Your task to perform on an android device: open app "Lyft - Rideshare, Bikes, Scooters & Transit" Image 0: 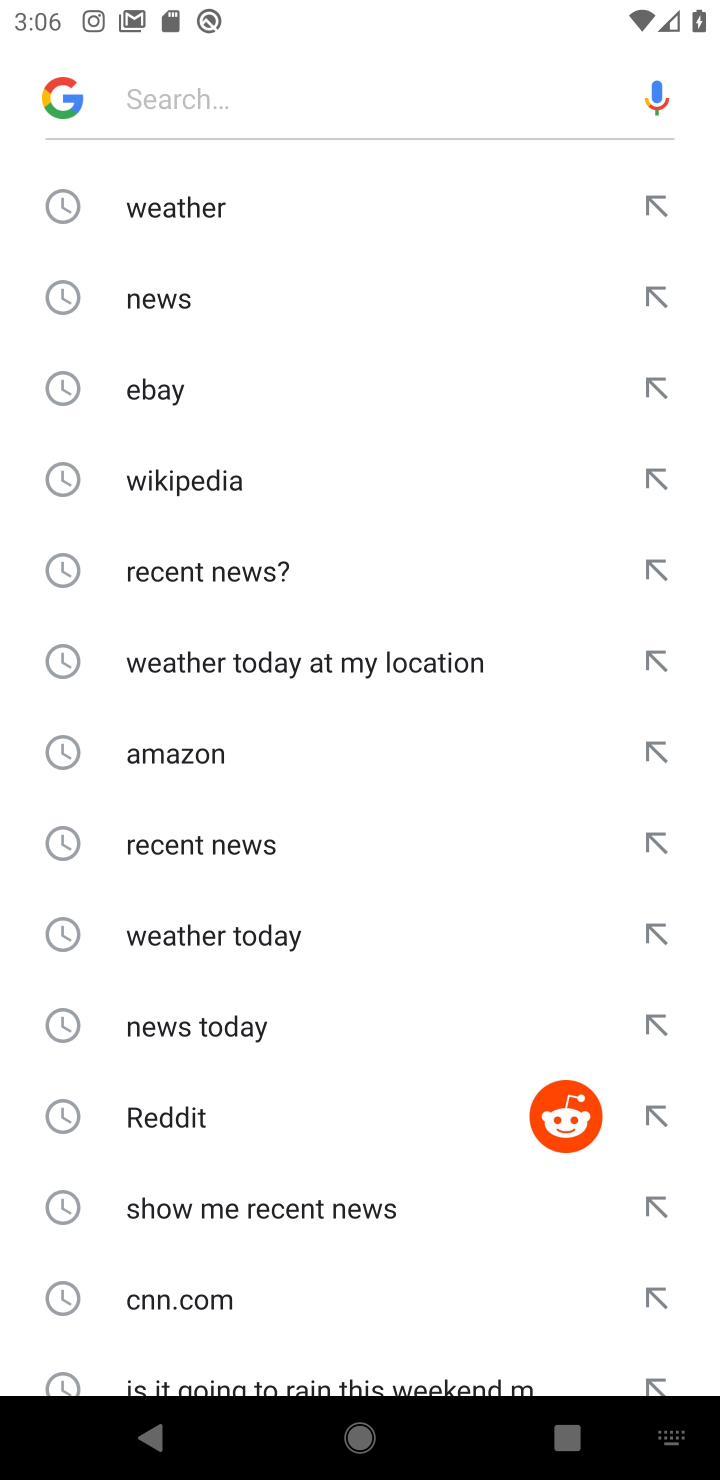
Step 0: press home button
Your task to perform on an android device: open app "Lyft - Rideshare, Bikes, Scooters & Transit" Image 1: 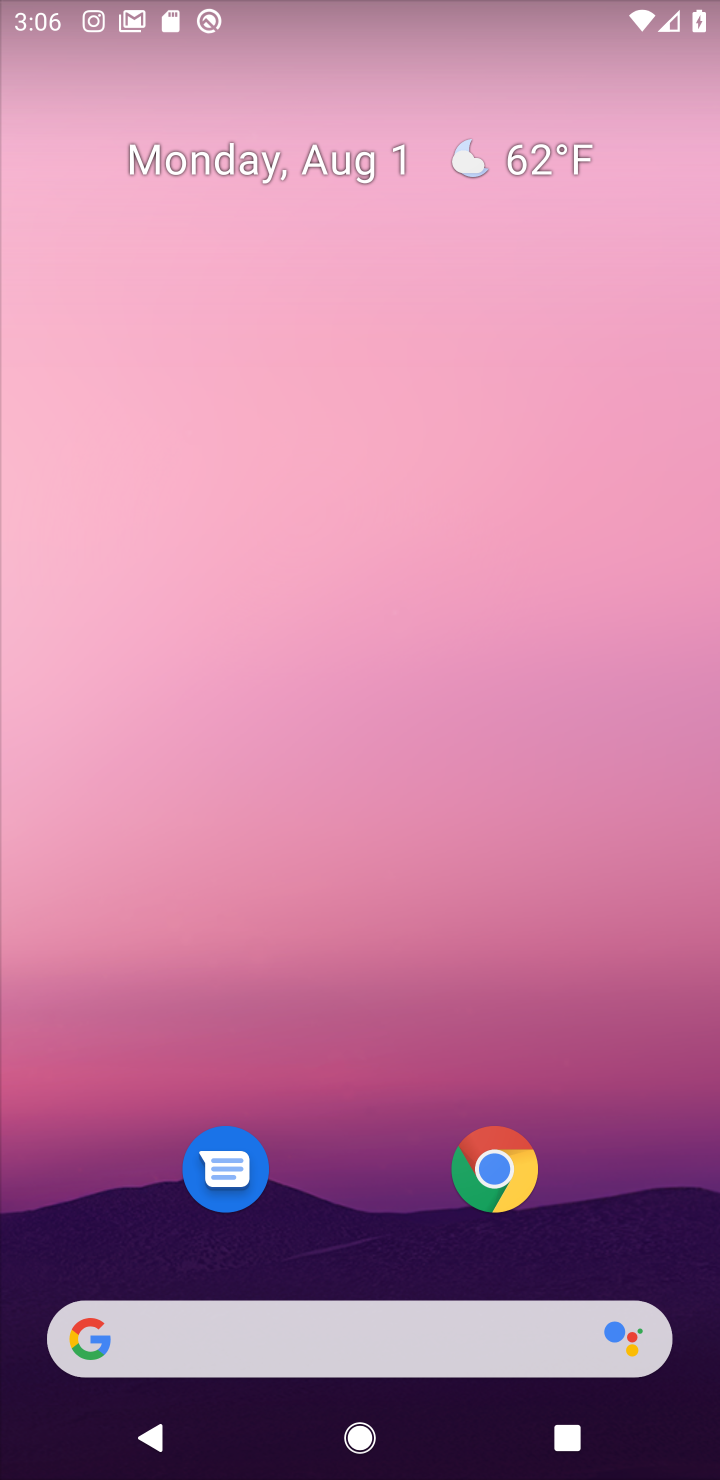
Step 1: press home button
Your task to perform on an android device: open app "Lyft - Rideshare, Bikes, Scooters & Transit" Image 2: 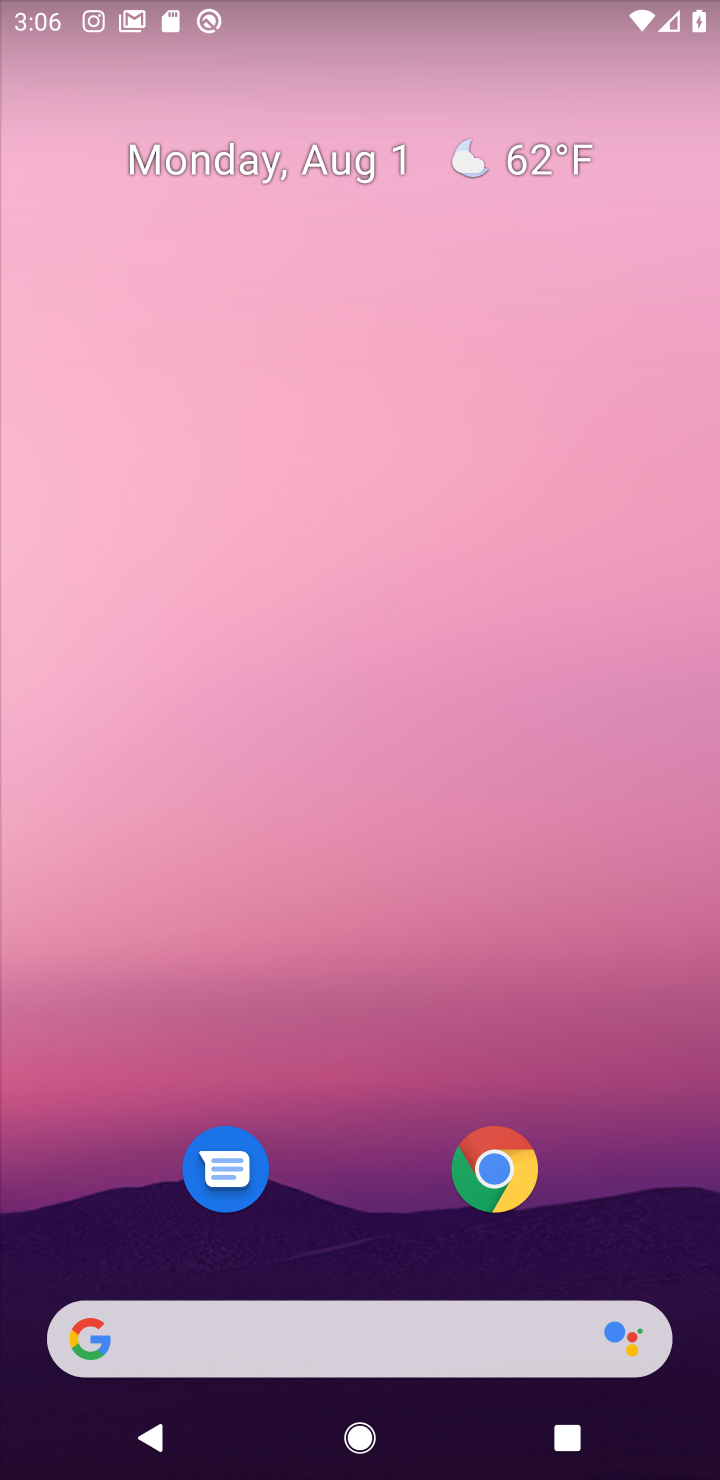
Step 2: drag from (299, 879) to (306, 510)
Your task to perform on an android device: open app "Lyft - Rideshare, Bikes, Scooters & Transit" Image 3: 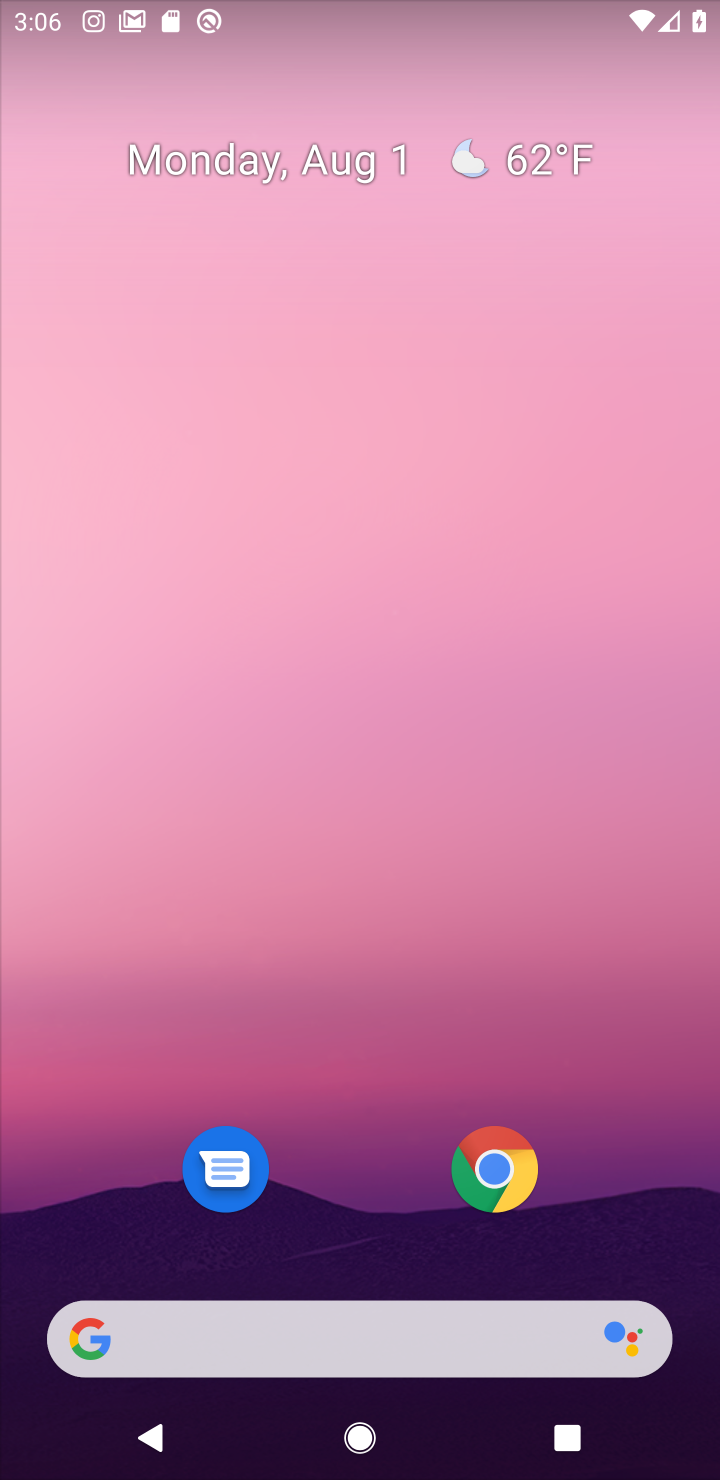
Step 3: drag from (327, 1226) to (327, 231)
Your task to perform on an android device: open app "Lyft - Rideshare, Bikes, Scooters & Transit" Image 4: 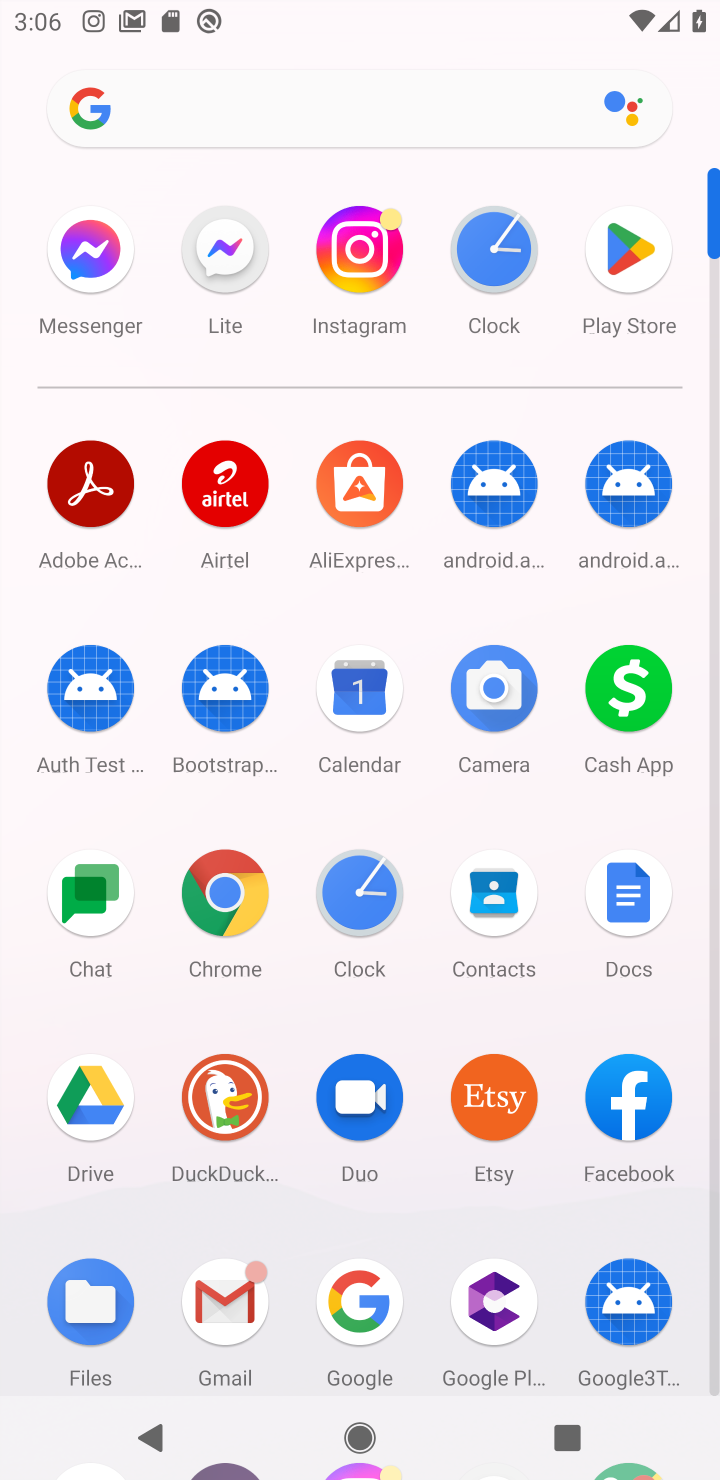
Step 4: click (614, 287)
Your task to perform on an android device: open app "Lyft - Rideshare, Bikes, Scooters & Transit" Image 5: 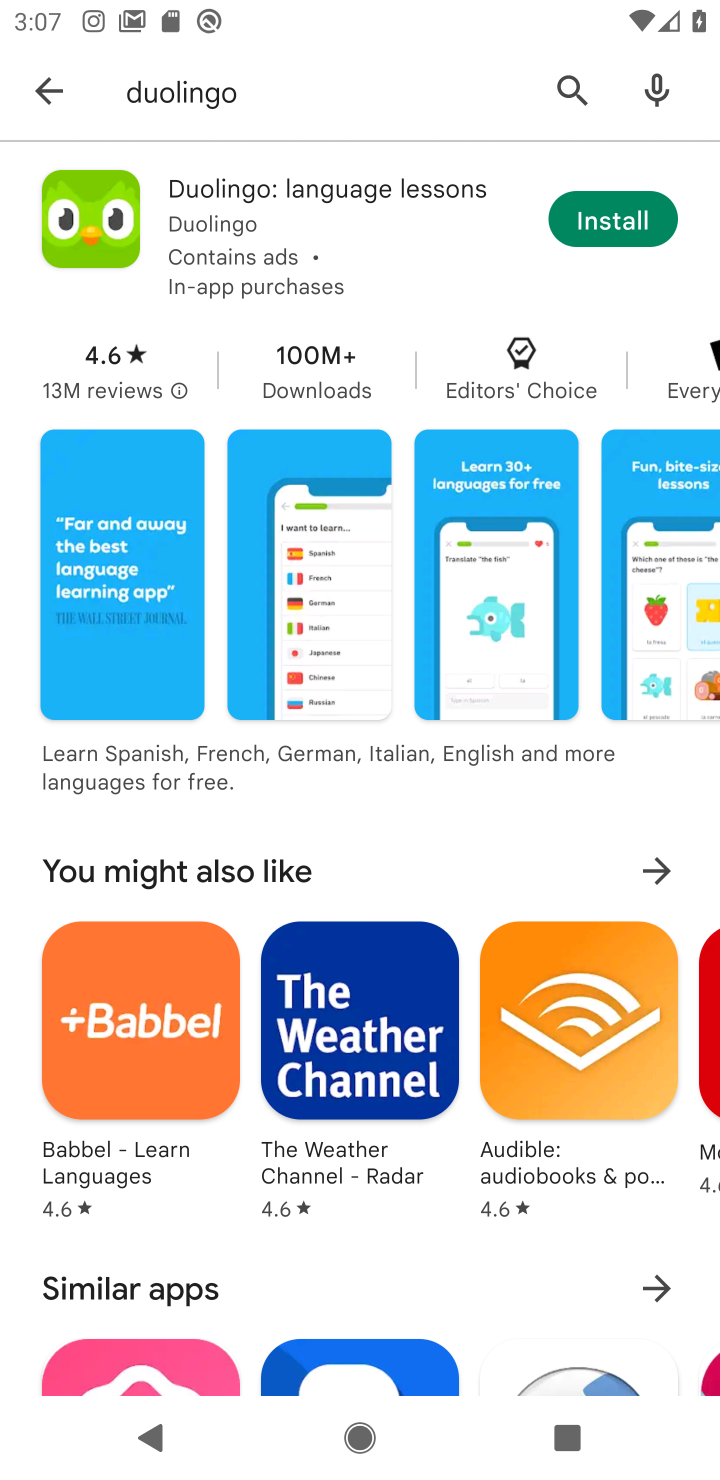
Step 5: click (37, 78)
Your task to perform on an android device: open app "Lyft - Rideshare, Bikes, Scooters & Transit" Image 6: 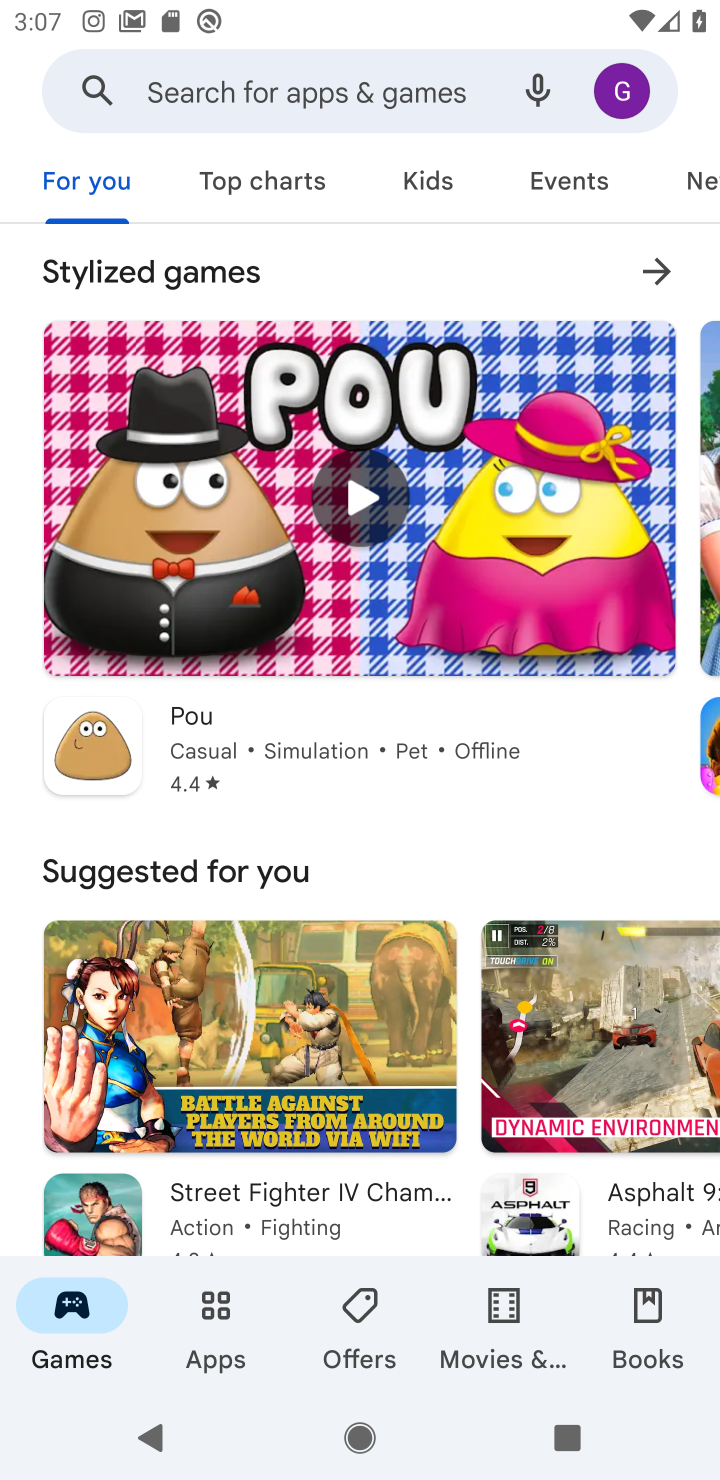
Step 6: click (338, 70)
Your task to perform on an android device: open app "Lyft - Rideshare, Bikes, Scooters & Transit" Image 7: 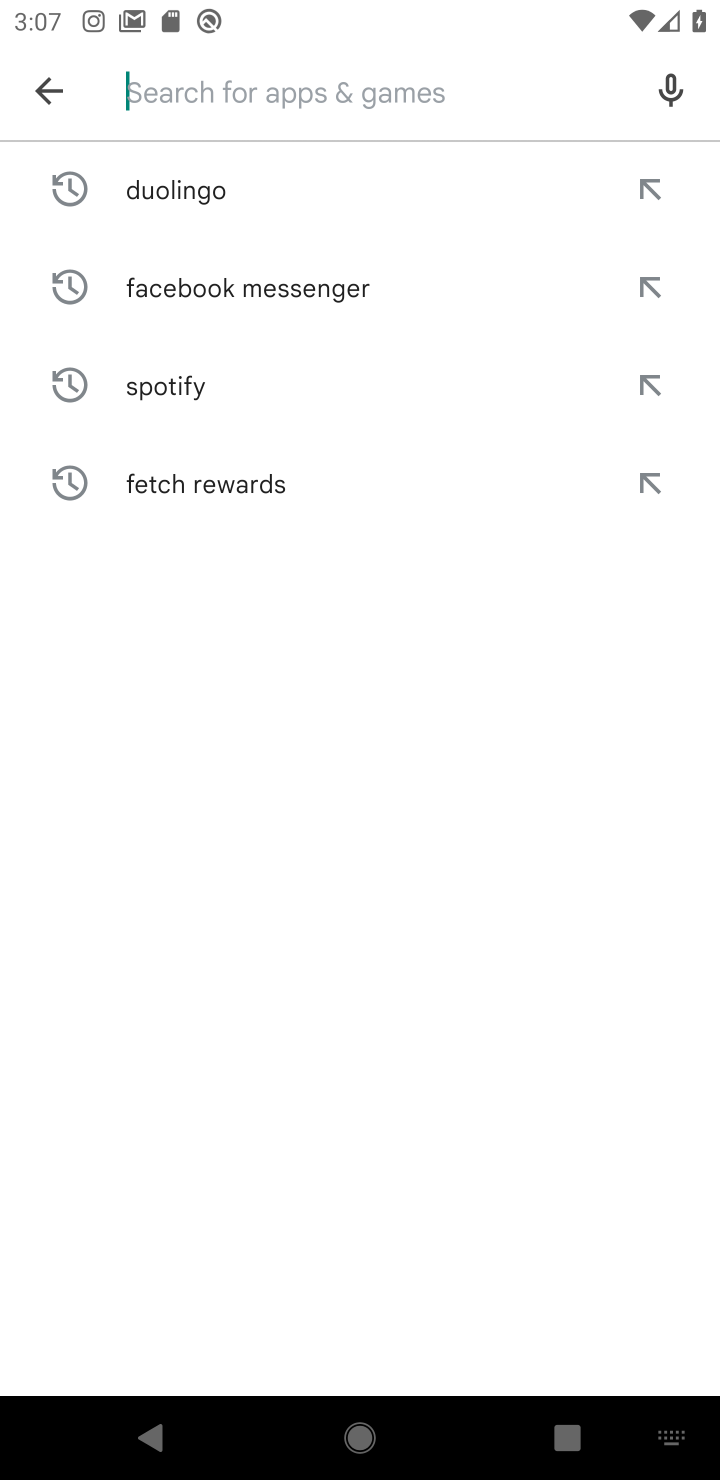
Step 7: type "Lyft - Rideshare, Bikes, Scooters & Transit"
Your task to perform on an android device: open app "Lyft - Rideshare, Bikes, Scooters & Transit" Image 8: 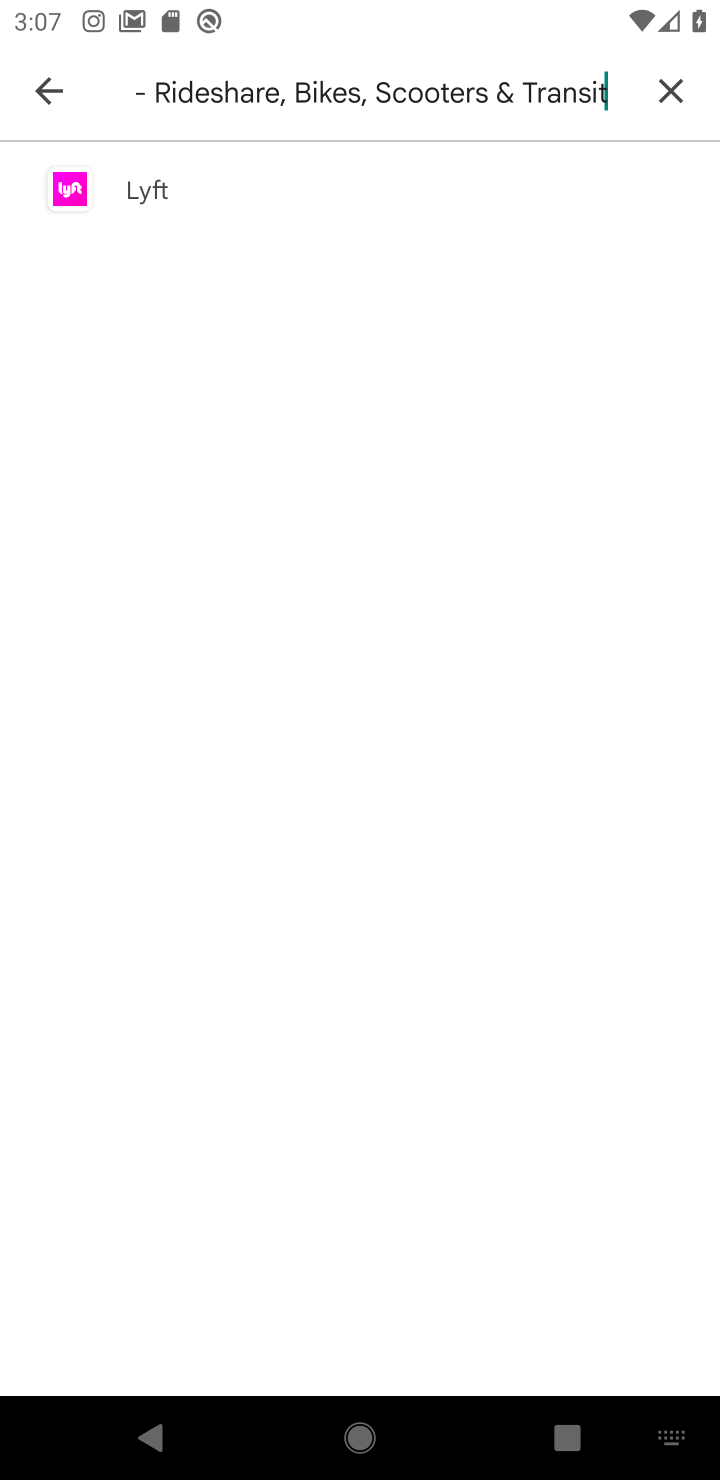
Step 8: click (136, 190)
Your task to perform on an android device: open app "Lyft - Rideshare, Bikes, Scooters & Transit" Image 9: 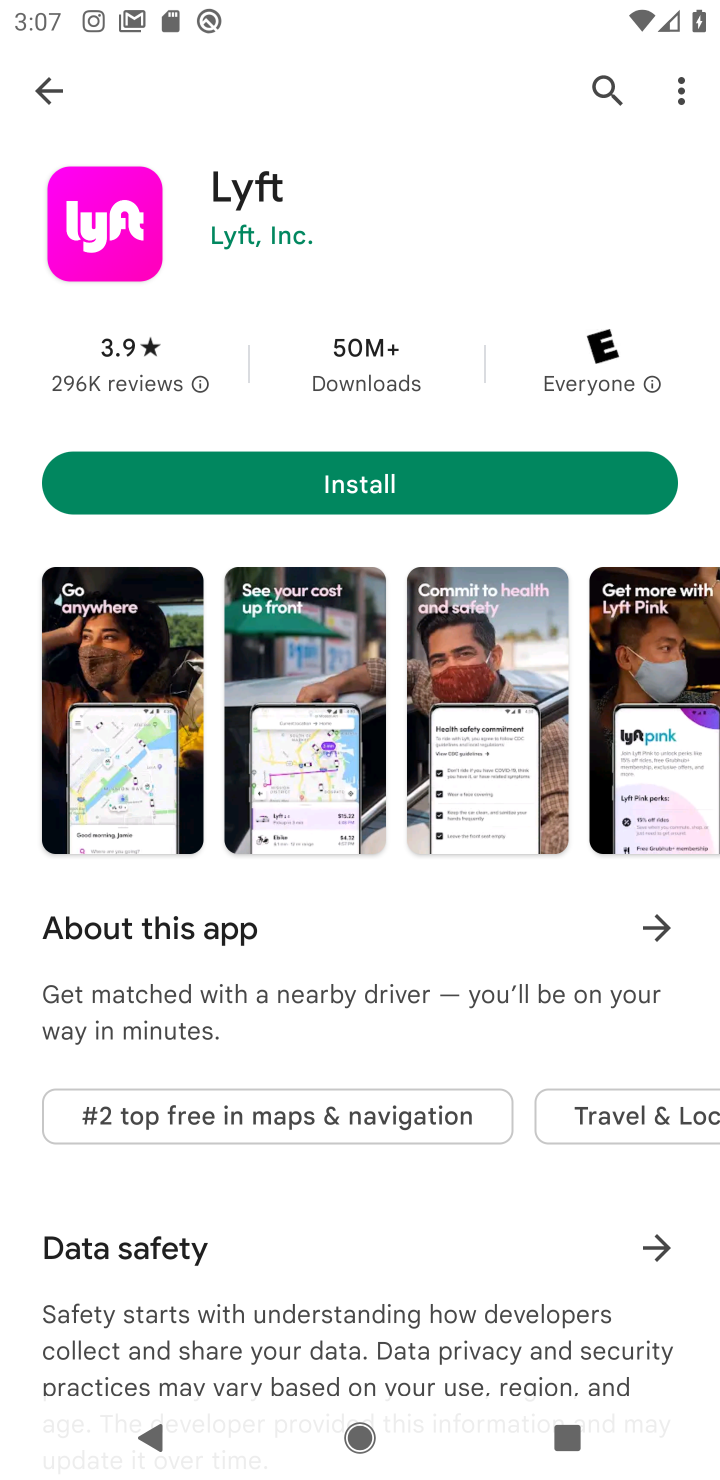
Step 9: click (381, 471)
Your task to perform on an android device: open app "Lyft - Rideshare, Bikes, Scooters & Transit" Image 10: 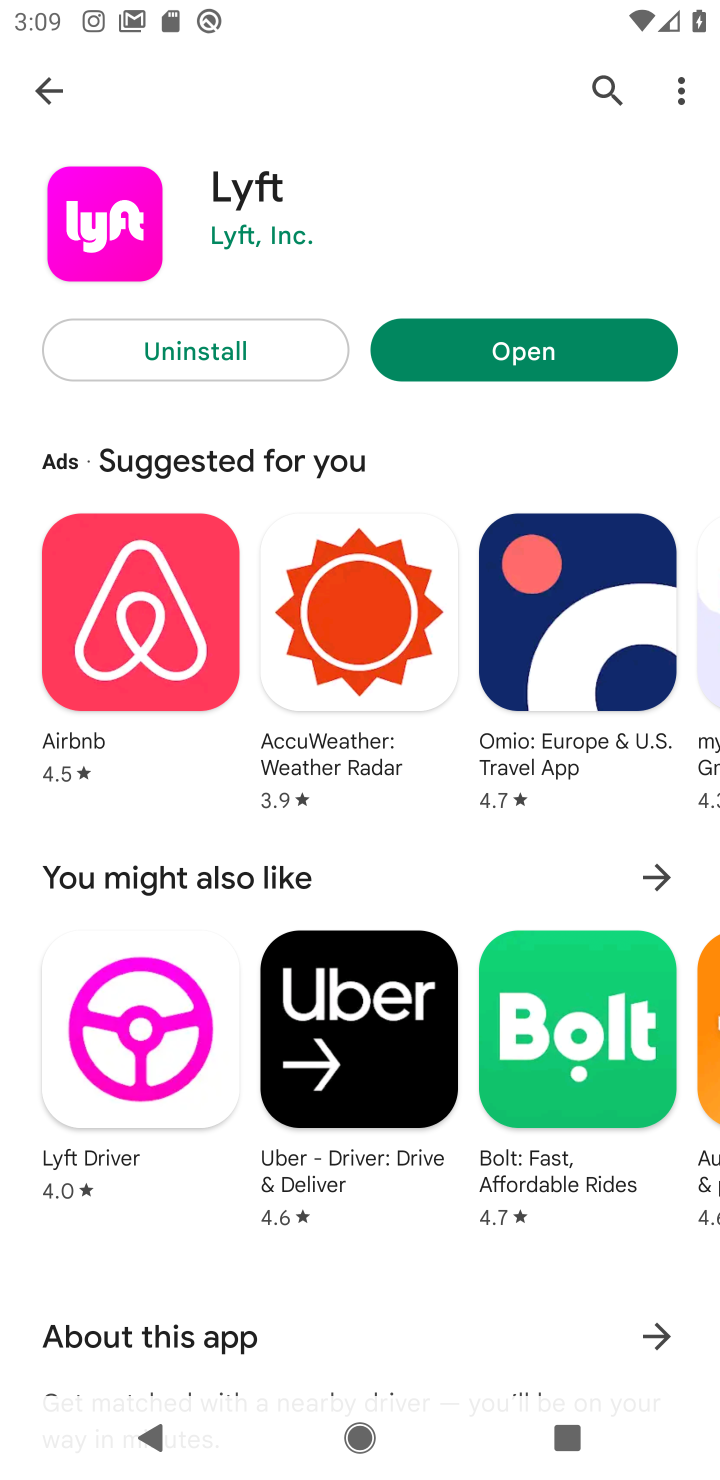
Step 10: click (504, 341)
Your task to perform on an android device: open app "Lyft - Rideshare, Bikes, Scooters & Transit" Image 11: 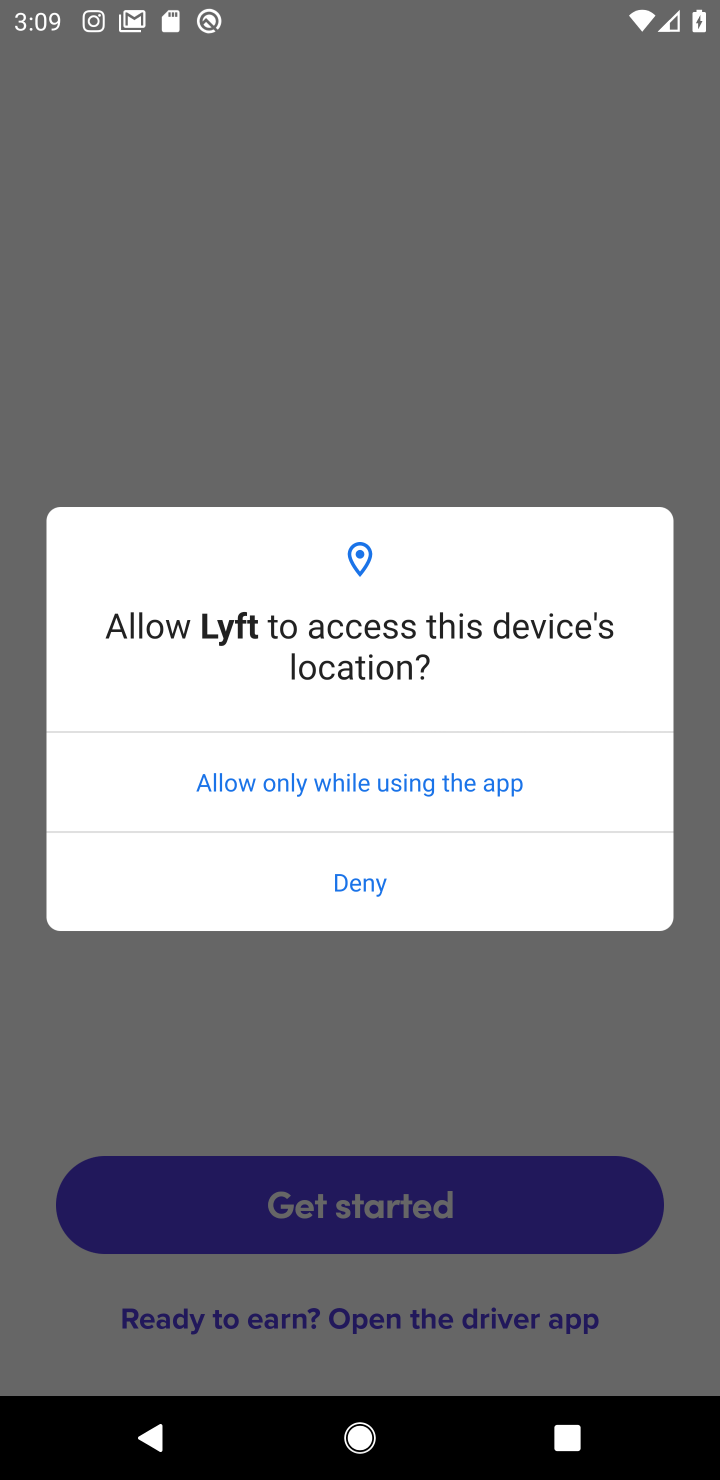
Step 11: click (356, 771)
Your task to perform on an android device: open app "Lyft - Rideshare, Bikes, Scooters & Transit" Image 12: 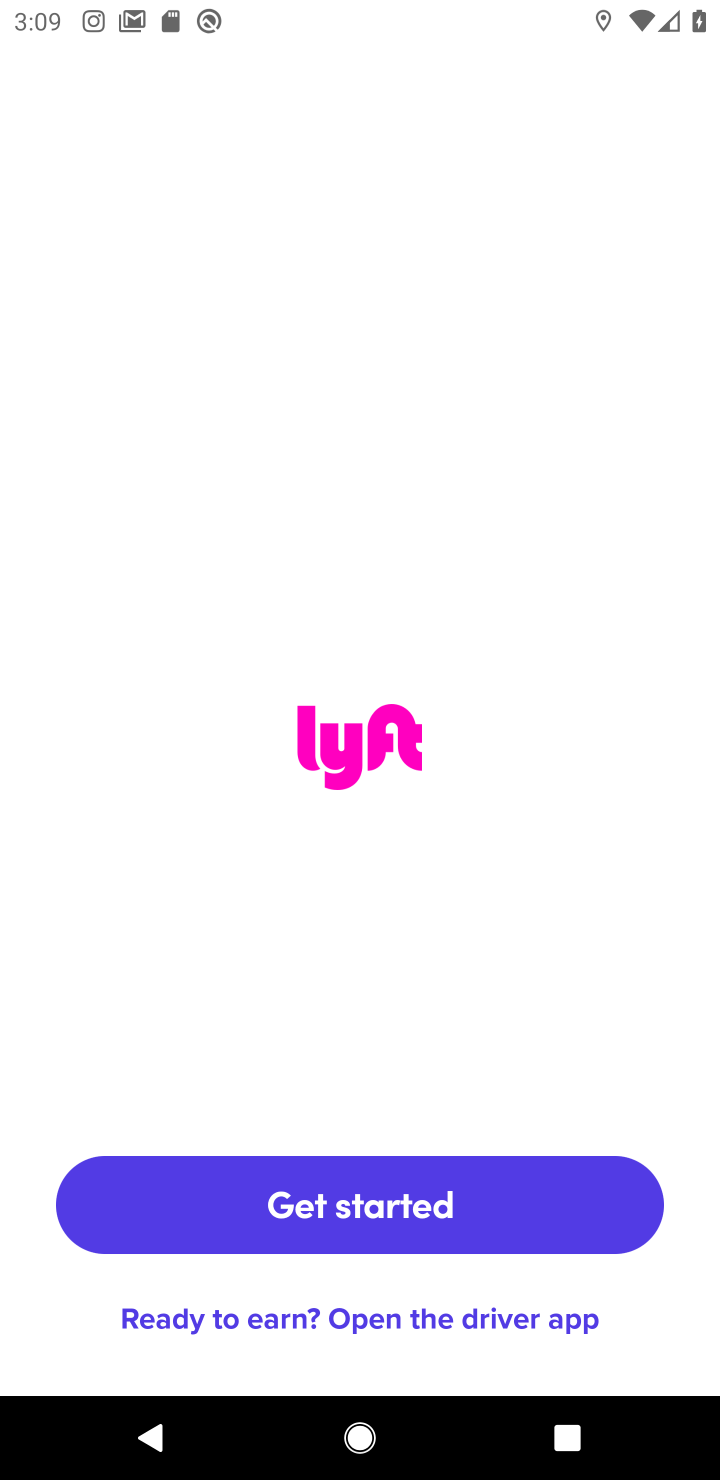
Step 12: click (341, 1207)
Your task to perform on an android device: open app "Lyft - Rideshare, Bikes, Scooters & Transit" Image 13: 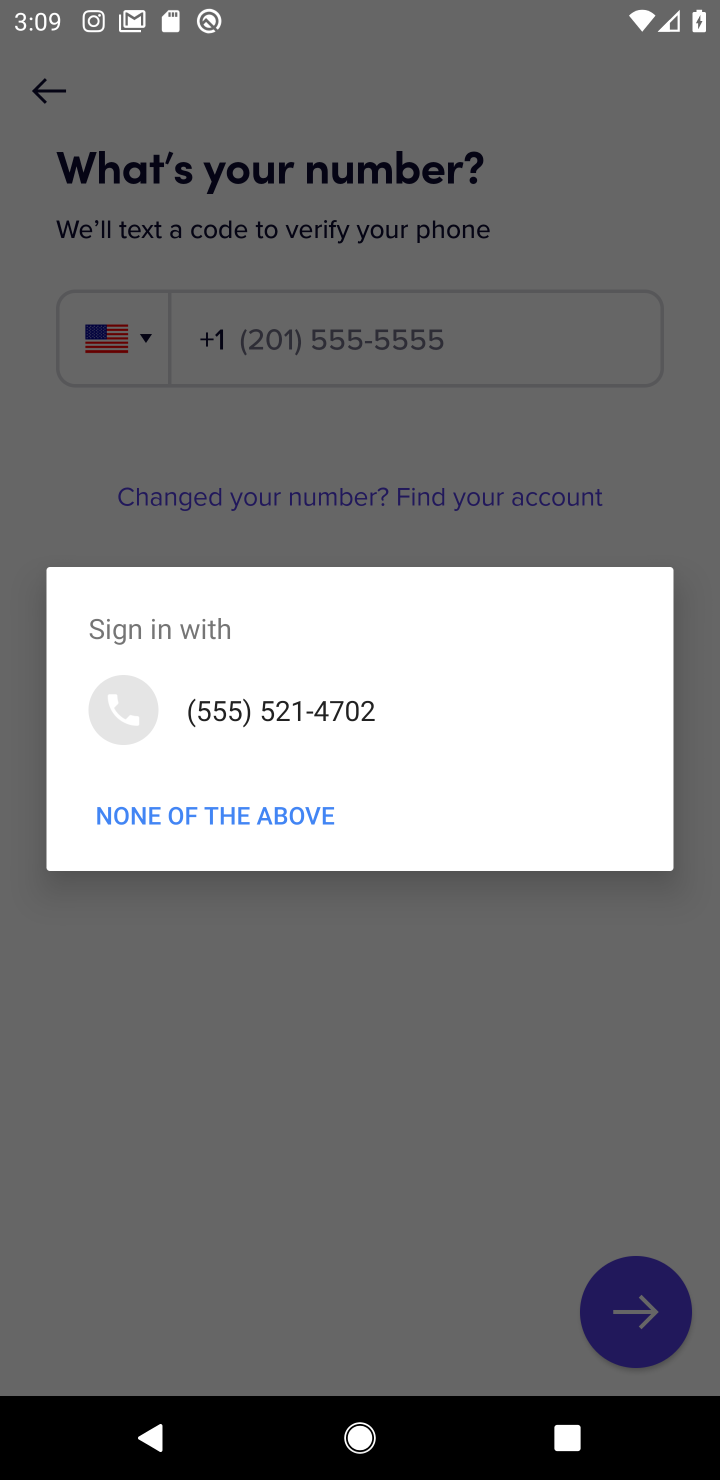
Step 13: task complete